Your task to perform on an android device: turn on improve location accuracy Image 0: 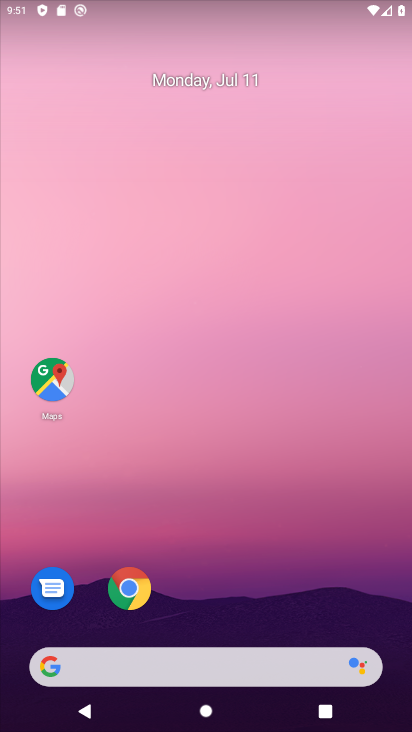
Step 0: drag from (217, 613) to (218, 16)
Your task to perform on an android device: turn on improve location accuracy Image 1: 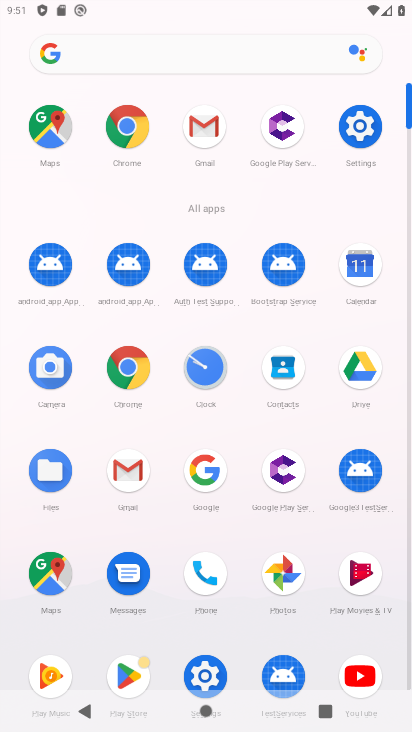
Step 1: click (367, 134)
Your task to perform on an android device: turn on improve location accuracy Image 2: 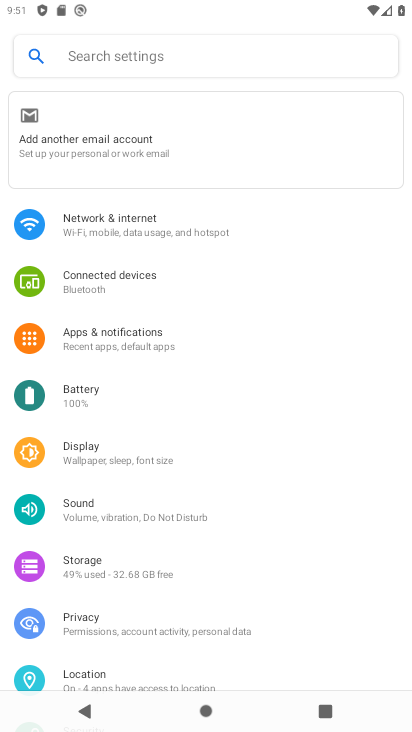
Step 2: click (86, 673)
Your task to perform on an android device: turn on improve location accuracy Image 3: 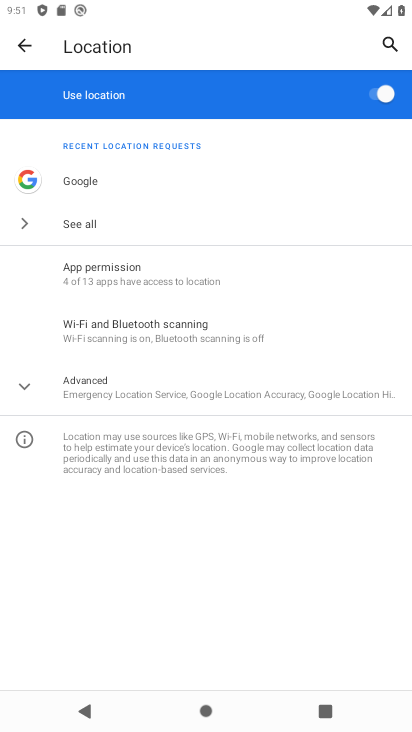
Step 3: click (169, 395)
Your task to perform on an android device: turn on improve location accuracy Image 4: 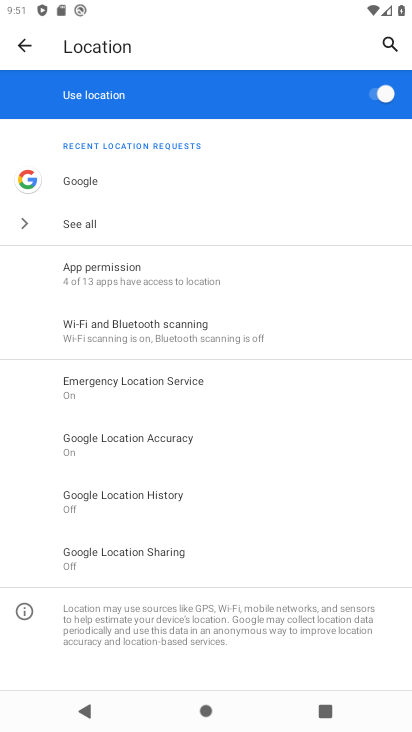
Step 4: click (173, 443)
Your task to perform on an android device: turn on improve location accuracy Image 5: 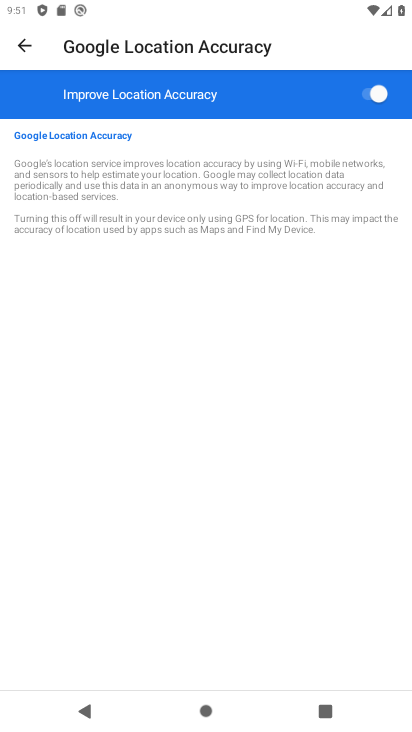
Step 5: task complete